Your task to perform on an android device: toggle sleep mode Image 0: 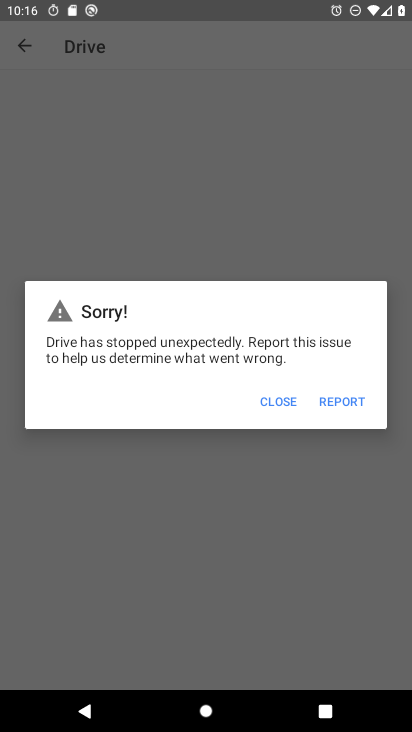
Step 0: press home button
Your task to perform on an android device: toggle sleep mode Image 1: 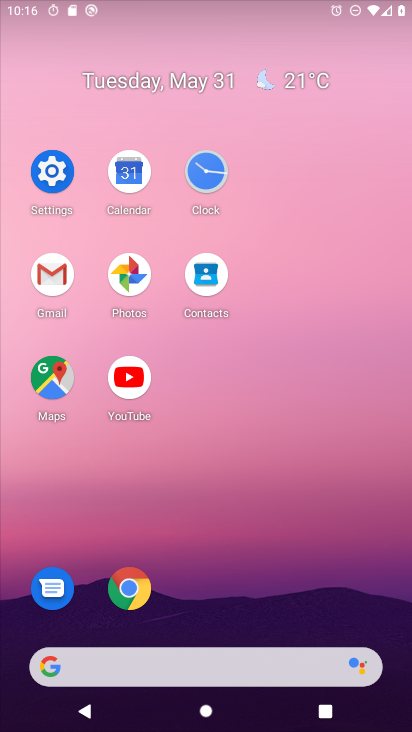
Step 1: click (63, 178)
Your task to perform on an android device: toggle sleep mode Image 2: 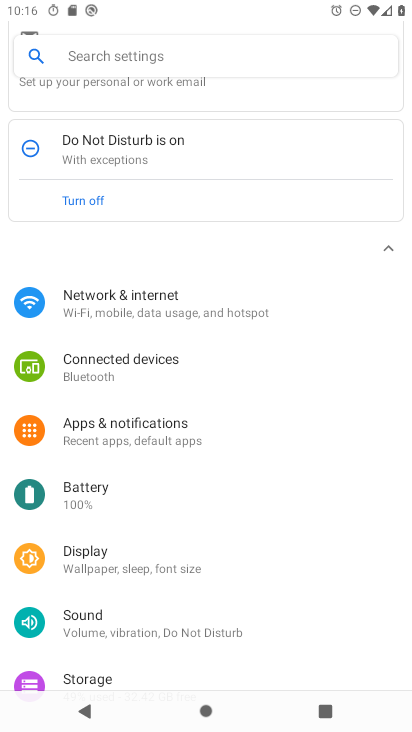
Step 2: click (110, 572)
Your task to perform on an android device: toggle sleep mode Image 3: 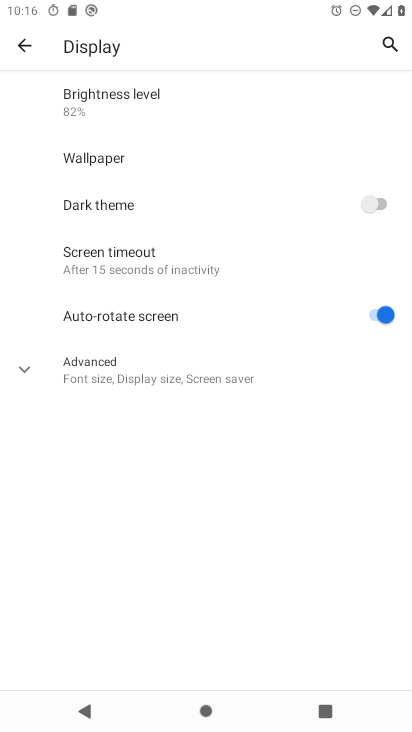
Step 3: click (131, 264)
Your task to perform on an android device: toggle sleep mode Image 4: 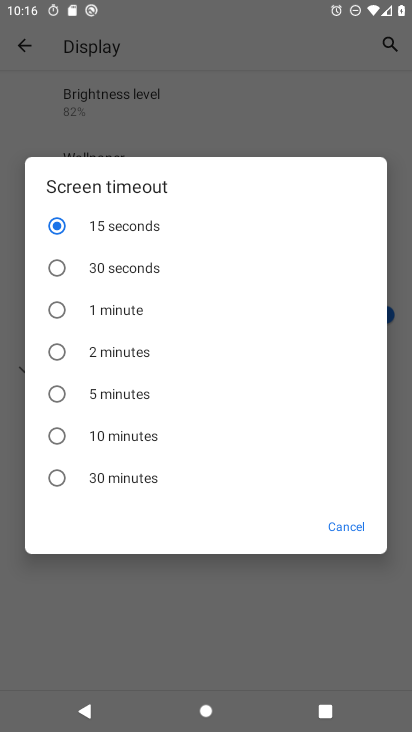
Step 4: click (130, 264)
Your task to perform on an android device: toggle sleep mode Image 5: 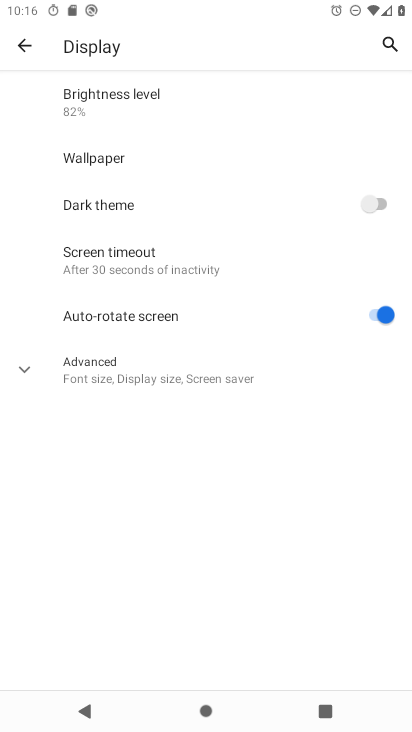
Step 5: task complete